Your task to perform on an android device: stop showing notifications on the lock screen Image 0: 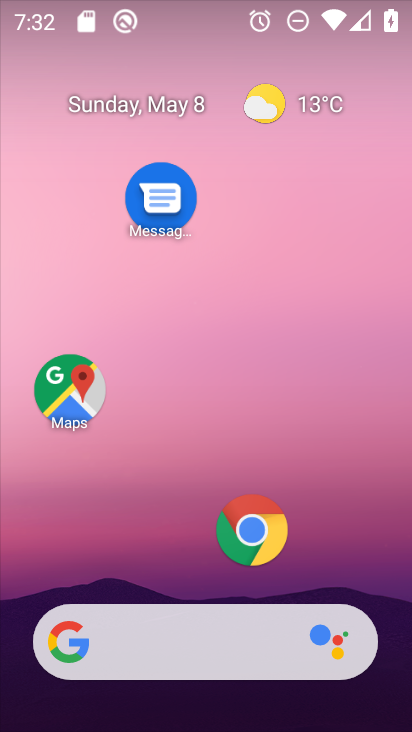
Step 0: press home button
Your task to perform on an android device: stop showing notifications on the lock screen Image 1: 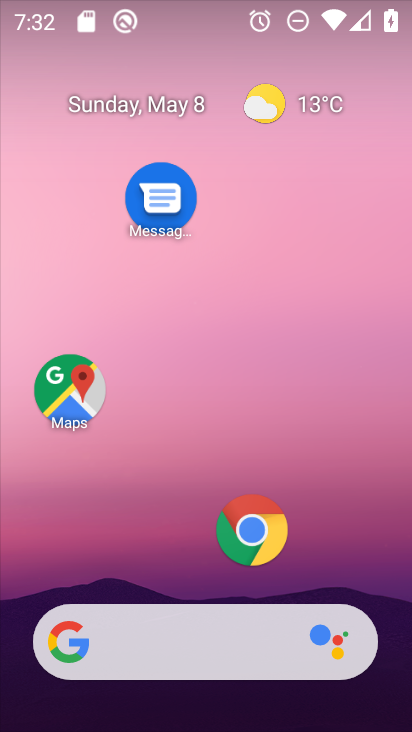
Step 1: drag from (209, 581) to (256, 127)
Your task to perform on an android device: stop showing notifications on the lock screen Image 2: 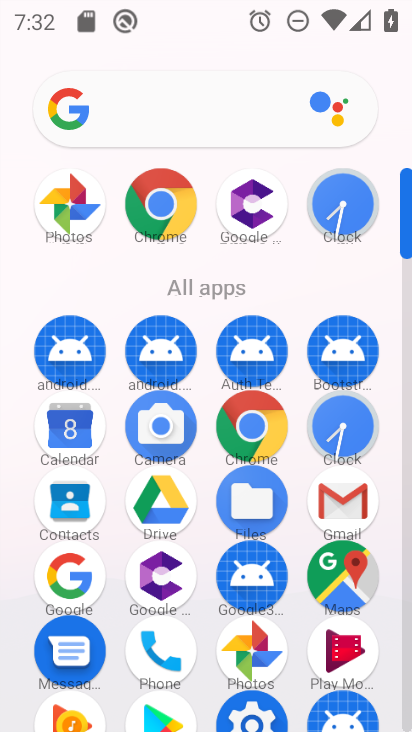
Step 2: click (252, 715)
Your task to perform on an android device: stop showing notifications on the lock screen Image 3: 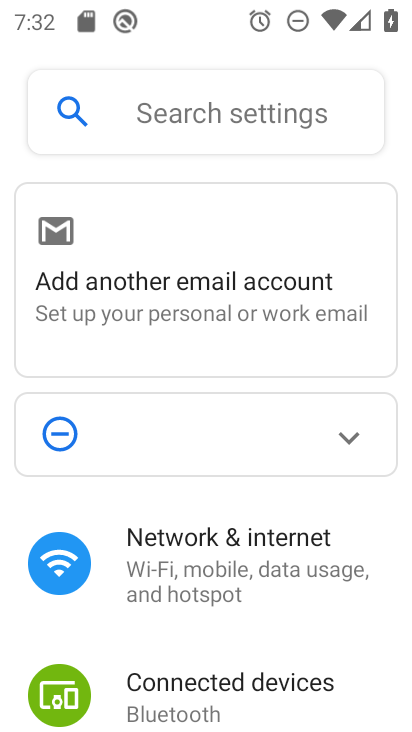
Step 3: drag from (246, 683) to (301, 153)
Your task to perform on an android device: stop showing notifications on the lock screen Image 4: 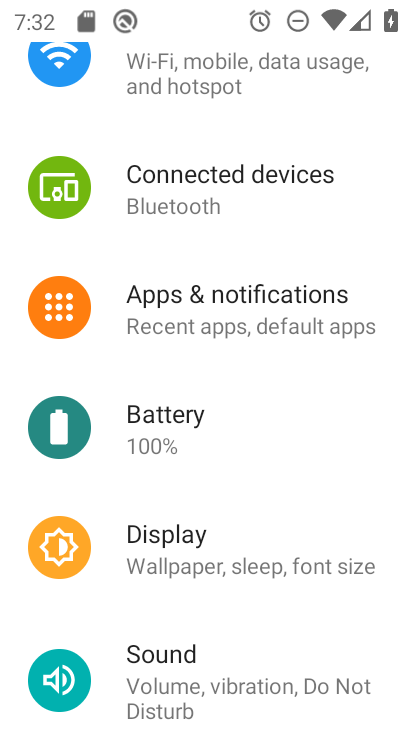
Step 4: click (268, 311)
Your task to perform on an android device: stop showing notifications on the lock screen Image 5: 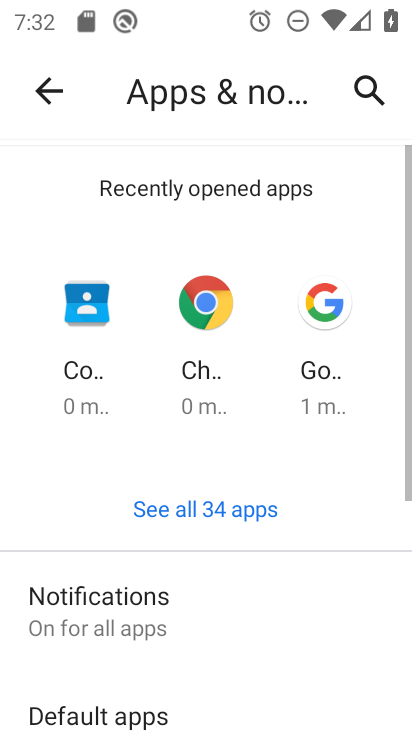
Step 5: click (186, 603)
Your task to perform on an android device: stop showing notifications on the lock screen Image 6: 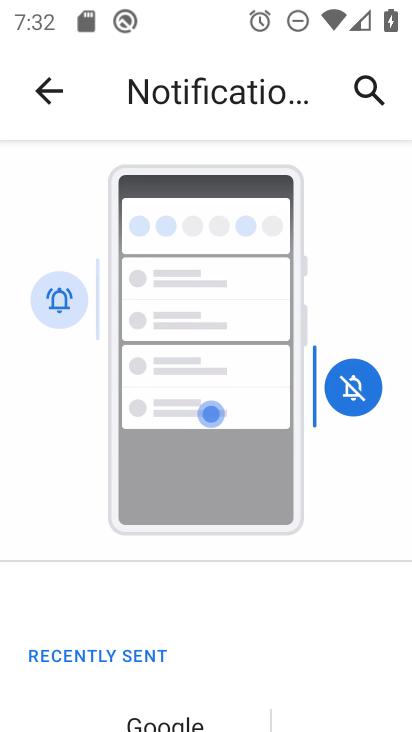
Step 6: drag from (243, 633) to (317, 85)
Your task to perform on an android device: stop showing notifications on the lock screen Image 7: 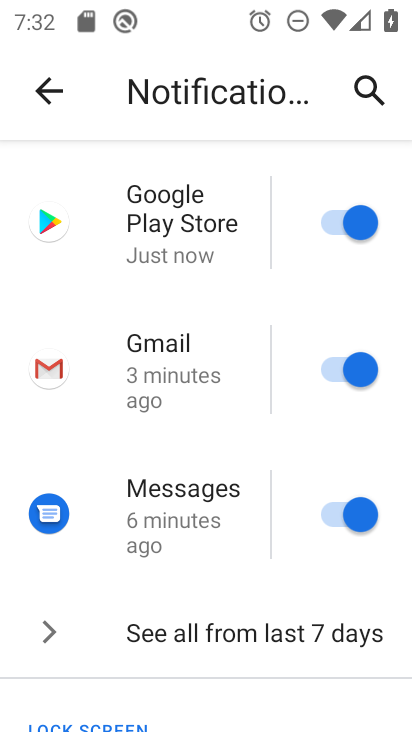
Step 7: drag from (237, 688) to (259, 129)
Your task to perform on an android device: stop showing notifications on the lock screen Image 8: 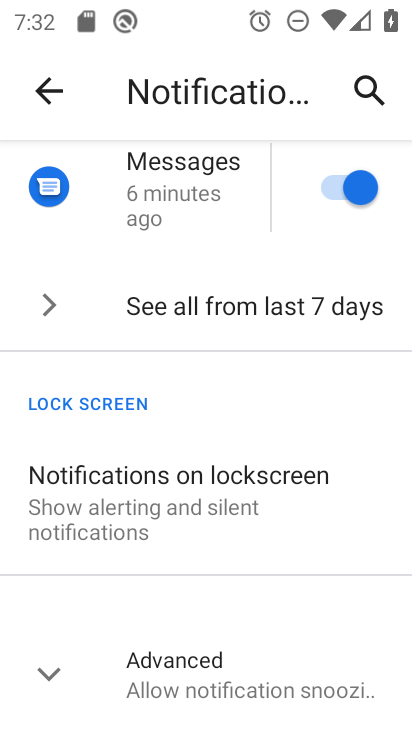
Step 8: click (221, 498)
Your task to perform on an android device: stop showing notifications on the lock screen Image 9: 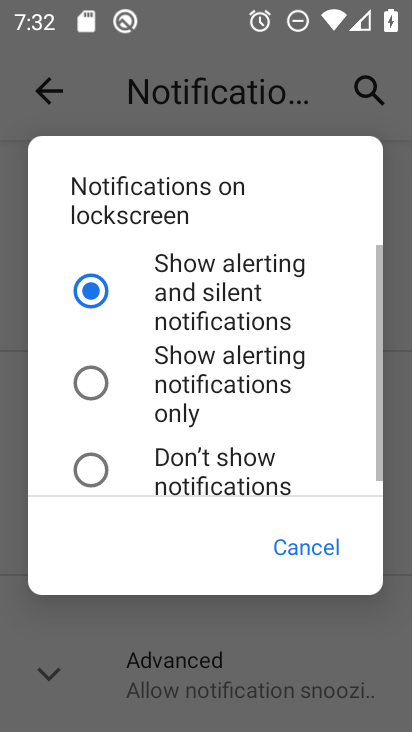
Step 9: click (94, 476)
Your task to perform on an android device: stop showing notifications on the lock screen Image 10: 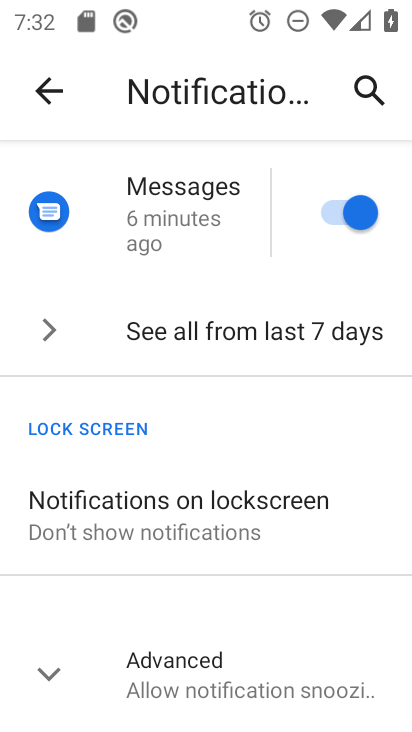
Step 10: task complete